Your task to perform on an android device: Go to battery settings Image 0: 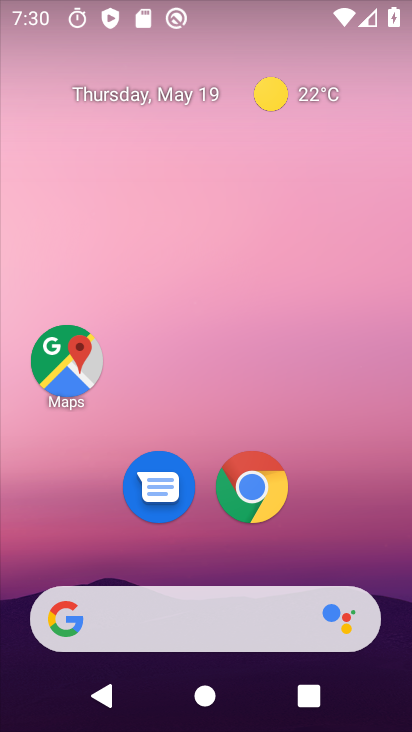
Step 0: press home button
Your task to perform on an android device: Go to battery settings Image 1: 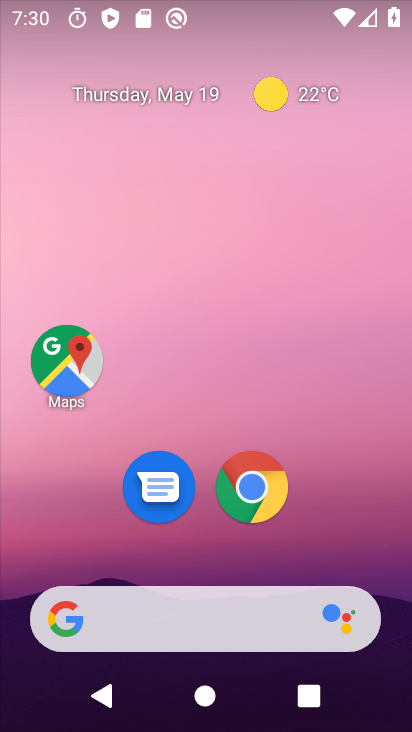
Step 1: drag from (185, 526) to (319, 94)
Your task to perform on an android device: Go to battery settings Image 2: 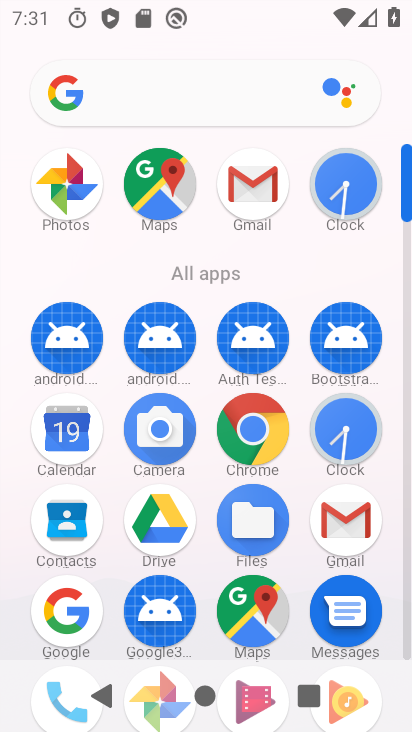
Step 2: drag from (210, 563) to (323, 166)
Your task to perform on an android device: Go to battery settings Image 3: 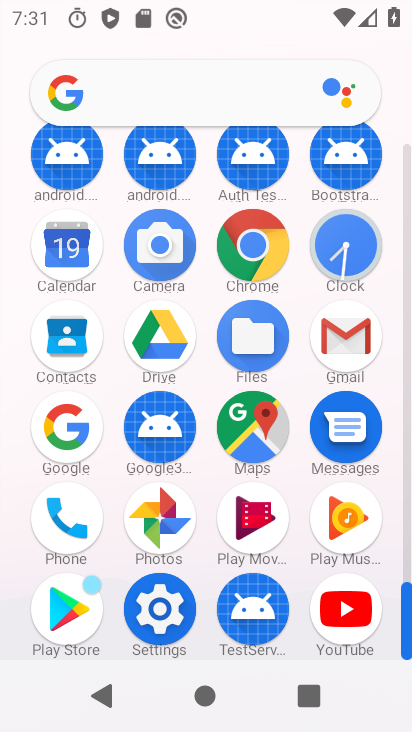
Step 3: click (168, 605)
Your task to perform on an android device: Go to battery settings Image 4: 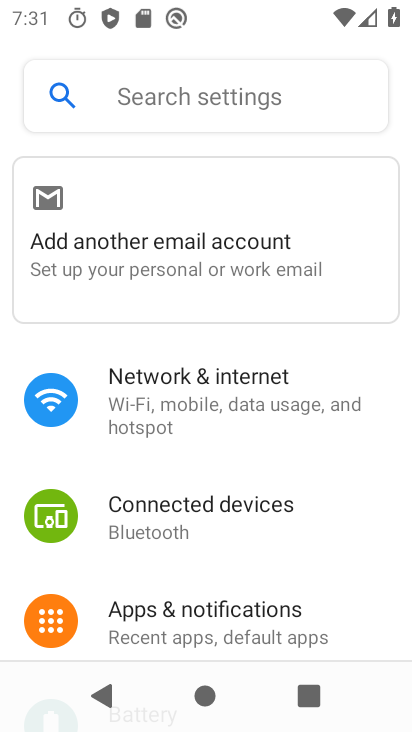
Step 4: drag from (236, 599) to (348, 109)
Your task to perform on an android device: Go to battery settings Image 5: 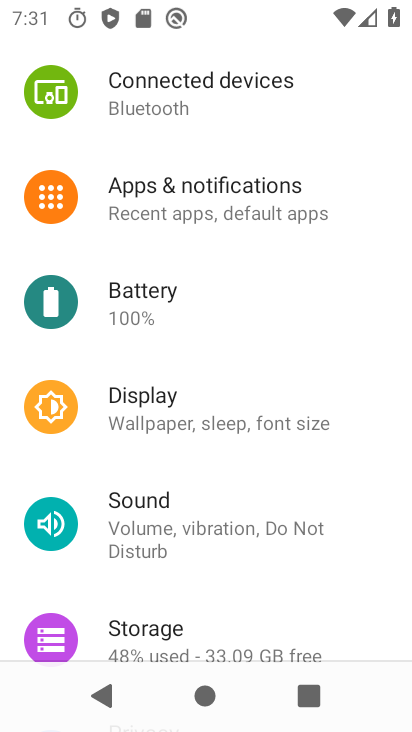
Step 5: click (134, 305)
Your task to perform on an android device: Go to battery settings Image 6: 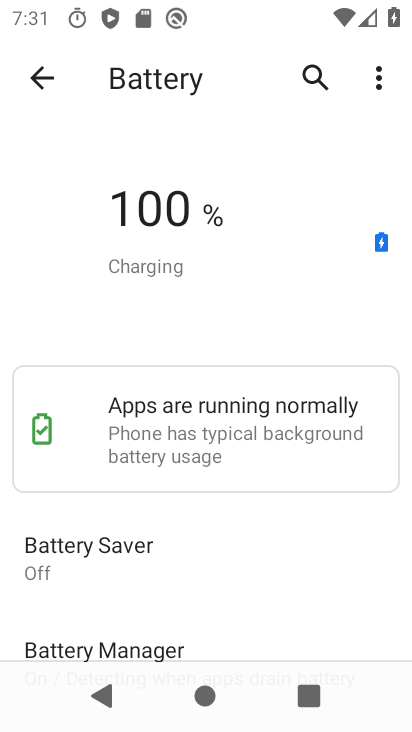
Step 6: task complete